Your task to perform on an android device: add a contact in the contacts app Image 0: 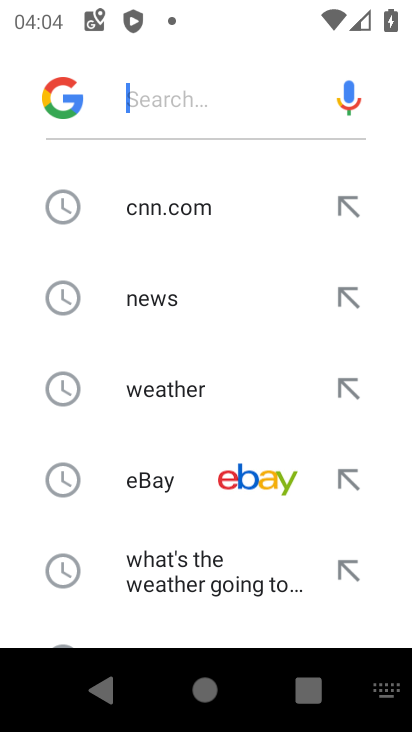
Step 0: press home button
Your task to perform on an android device: add a contact in the contacts app Image 1: 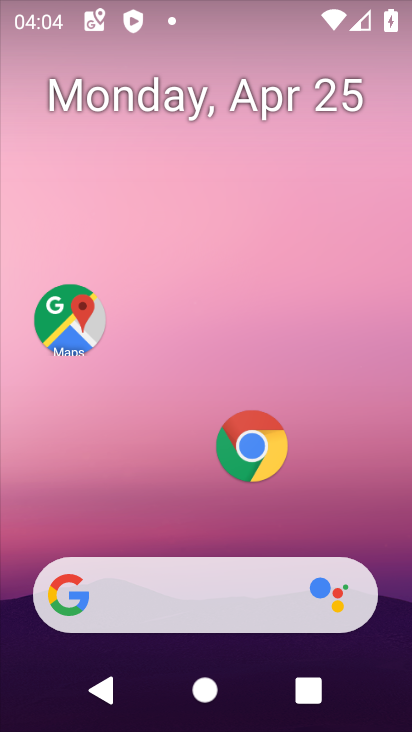
Step 1: drag from (171, 506) to (268, 6)
Your task to perform on an android device: add a contact in the contacts app Image 2: 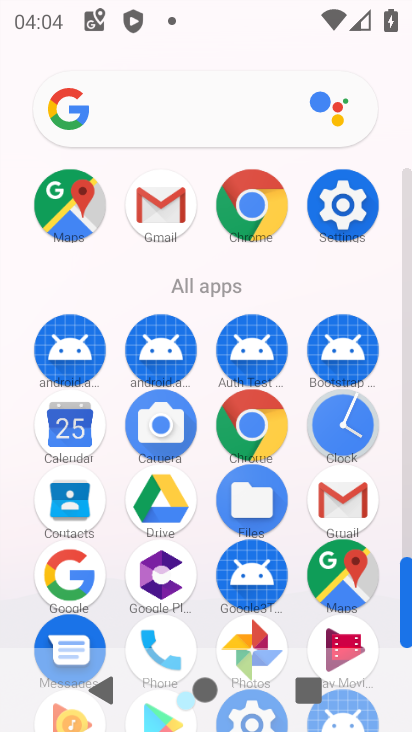
Step 2: click (75, 509)
Your task to perform on an android device: add a contact in the contacts app Image 3: 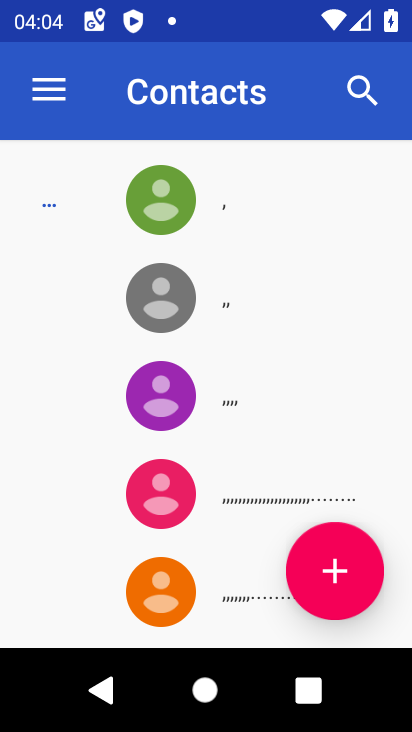
Step 3: click (337, 563)
Your task to perform on an android device: add a contact in the contacts app Image 4: 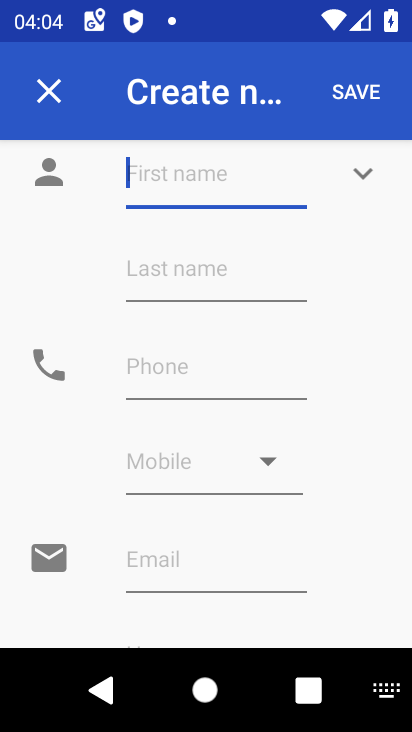
Step 4: type ",,,,"
Your task to perform on an android device: add a contact in the contacts app Image 5: 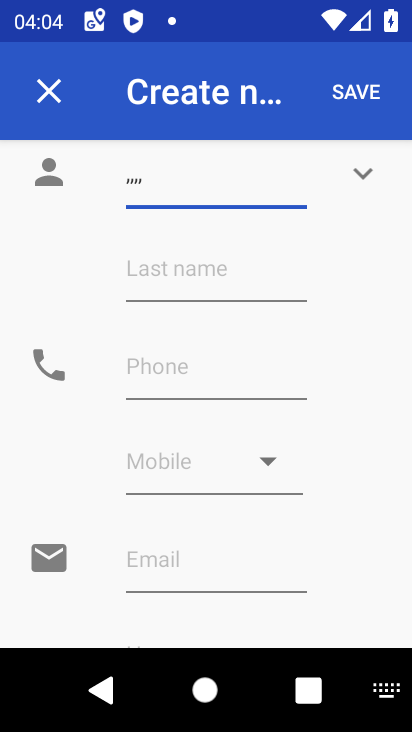
Step 5: click (252, 373)
Your task to perform on an android device: add a contact in the contacts app Image 6: 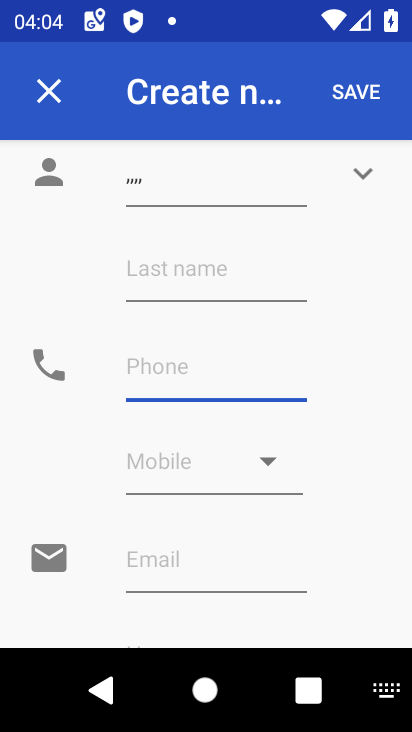
Step 6: type "9993456587"
Your task to perform on an android device: add a contact in the contacts app Image 7: 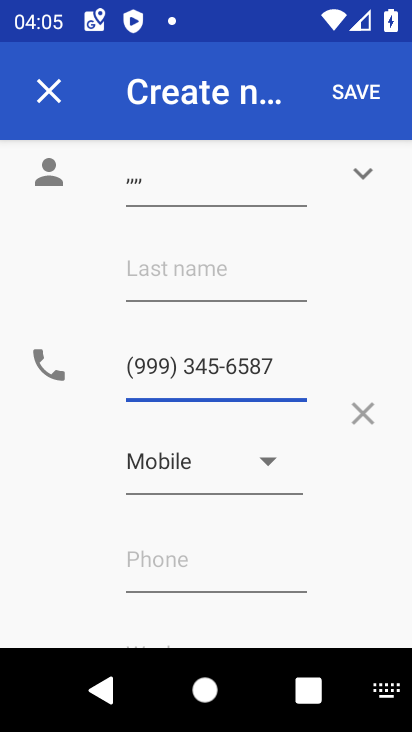
Step 7: click (348, 96)
Your task to perform on an android device: add a contact in the contacts app Image 8: 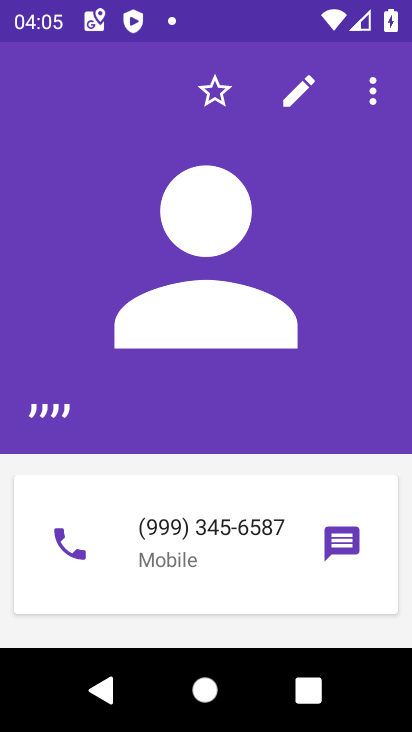
Step 8: task complete